Your task to perform on an android device: toggle wifi Image 0: 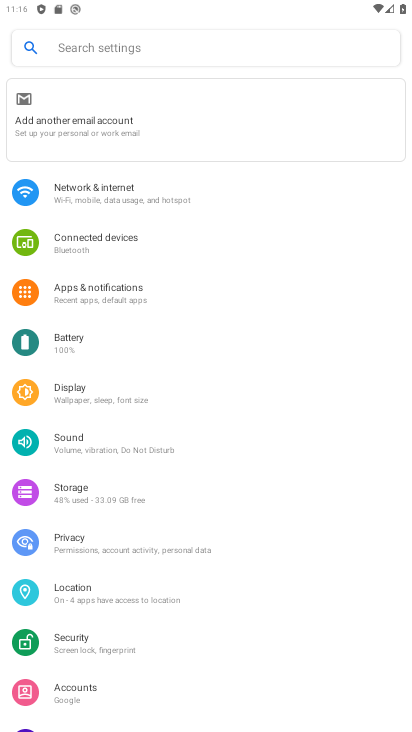
Step 0: click (138, 204)
Your task to perform on an android device: toggle wifi Image 1: 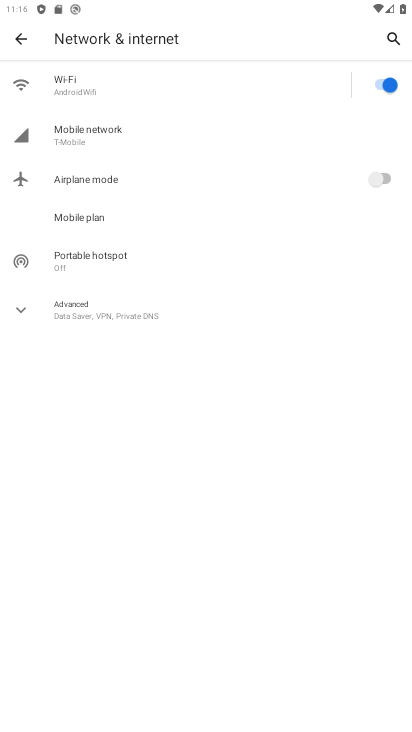
Step 1: click (391, 83)
Your task to perform on an android device: toggle wifi Image 2: 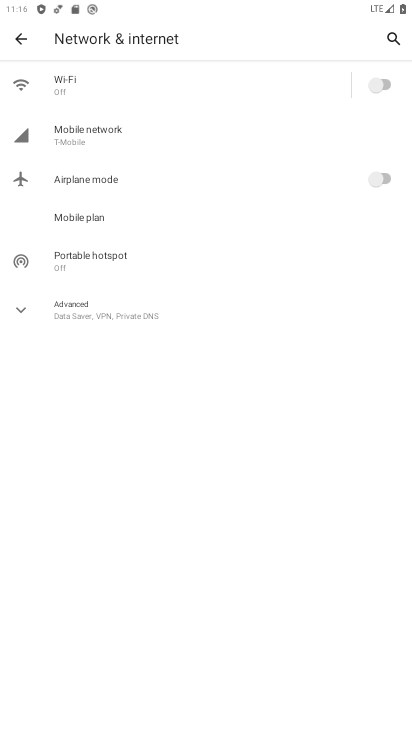
Step 2: task complete